Your task to perform on an android device: Open settings Image 0: 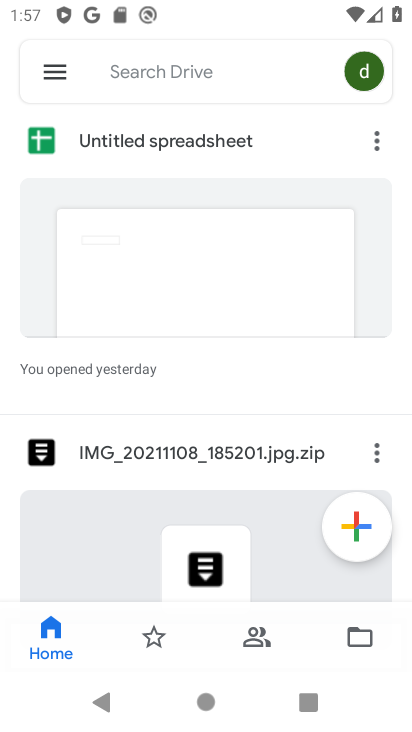
Step 0: press home button
Your task to perform on an android device: Open settings Image 1: 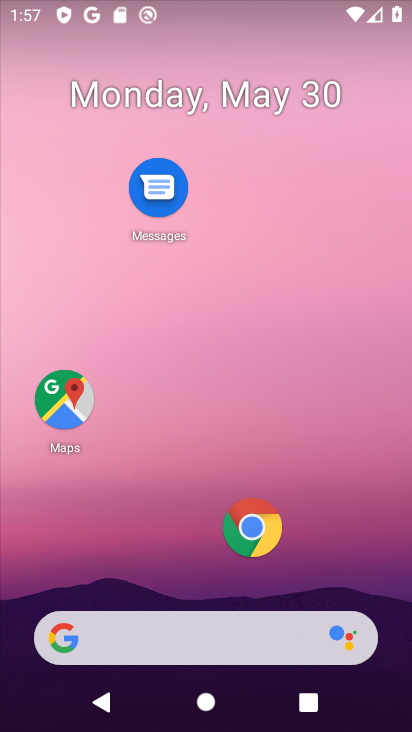
Step 1: drag from (216, 541) to (305, 63)
Your task to perform on an android device: Open settings Image 2: 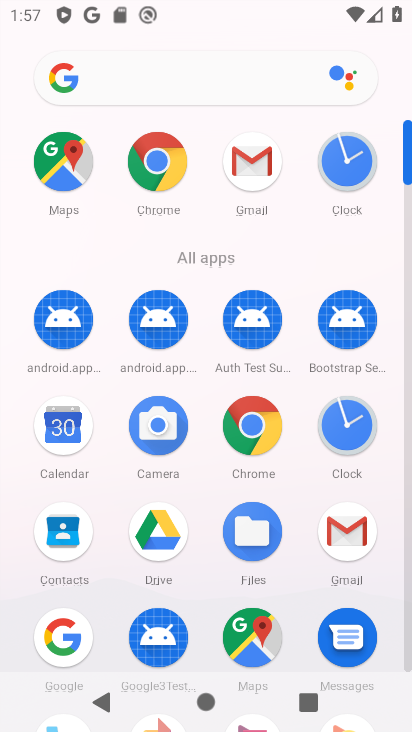
Step 2: drag from (212, 258) to (211, 37)
Your task to perform on an android device: Open settings Image 3: 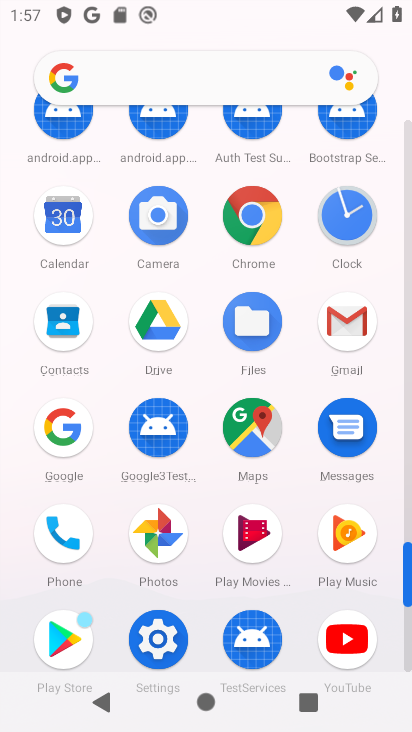
Step 3: click (163, 646)
Your task to perform on an android device: Open settings Image 4: 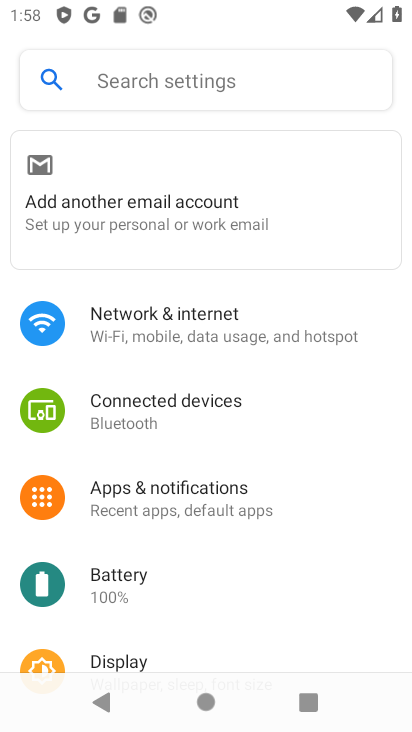
Step 4: task complete